Your task to perform on an android device: turn on notifications settings in the gmail app Image 0: 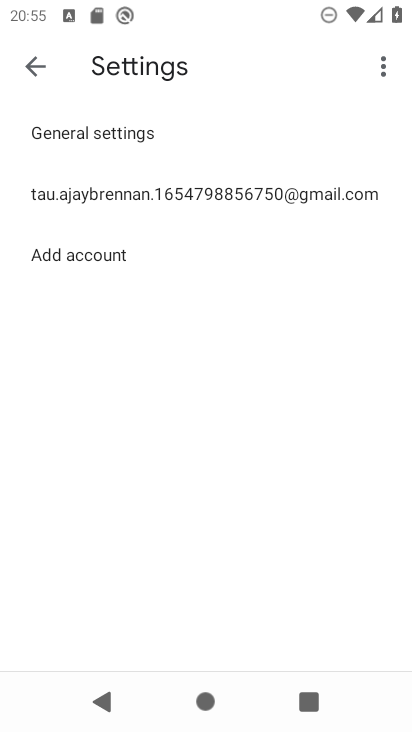
Step 0: click (149, 126)
Your task to perform on an android device: turn on notifications settings in the gmail app Image 1: 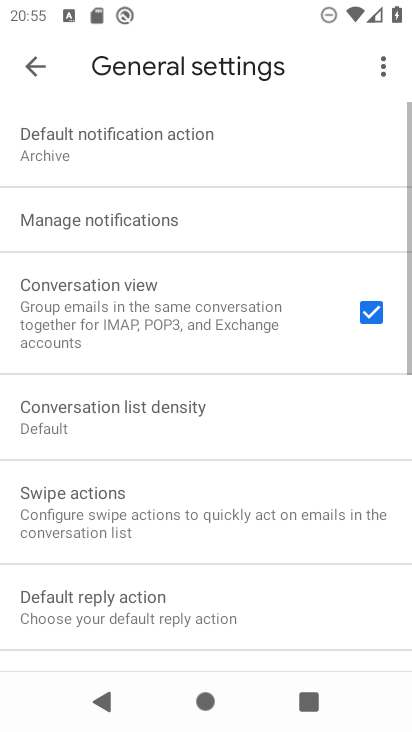
Step 1: click (178, 213)
Your task to perform on an android device: turn on notifications settings in the gmail app Image 2: 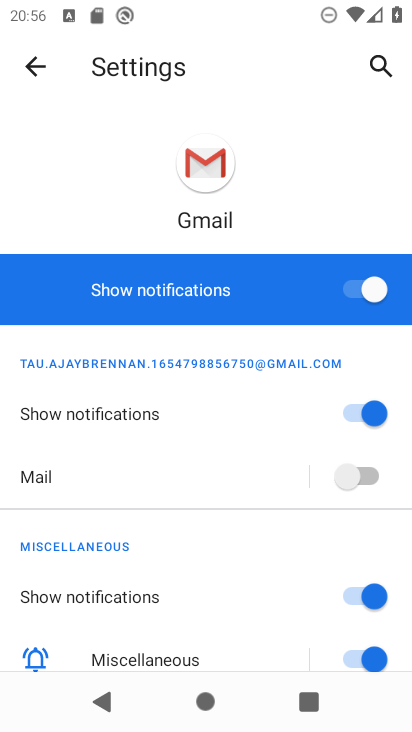
Step 2: click (370, 475)
Your task to perform on an android device: turn on notifications settings in the gmail app Image 3: 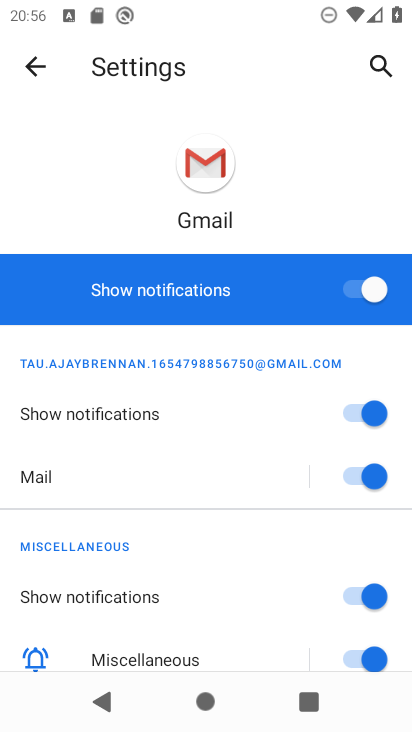
Step 3: drag from (270, 564) to (267, 190)
Your task to perform on an android device: turn on notifications settings in the gmail app Image 4: 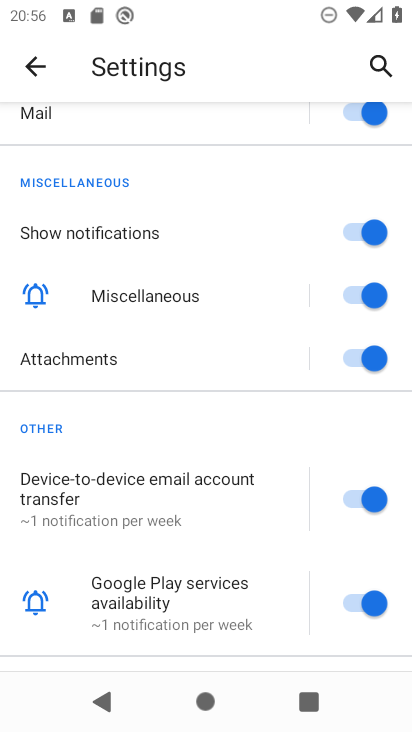
Step 4: drag from (242, 472) to (240, 220)
Your task to perform on an android device: turn on notifications settings in the gmail app Image 5: 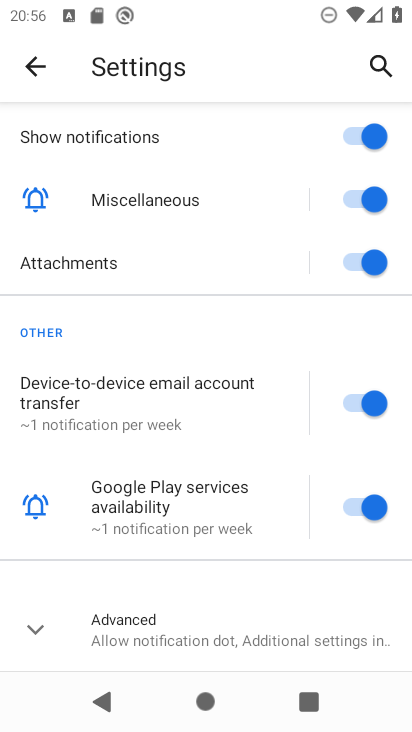
Step 5: click (36, 624)
Your task to perform on an android device: turn on notifications settings in the gmail app Image 6: 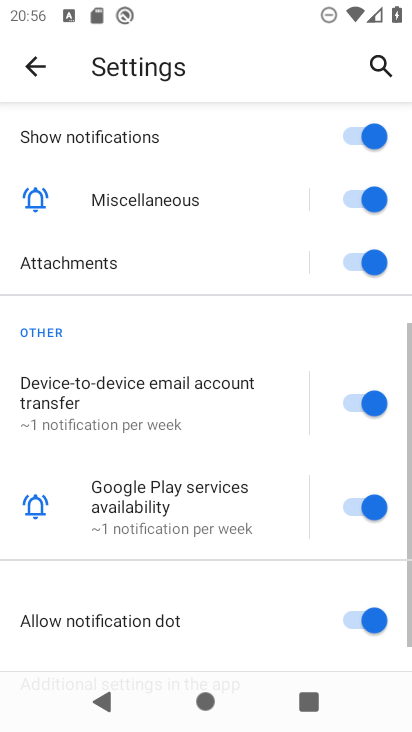
Step 6: task complete